Your task to perform on an android device: delete the emails in spam in the gmail app Image 0: 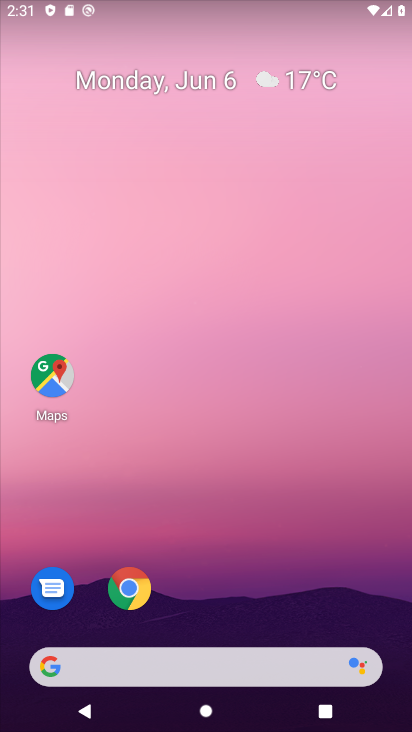
Step 0: drag from (240, 660) to (217, 127)
Your task to perform on an android device: delete the emails in spam in the gmail app Image 1: 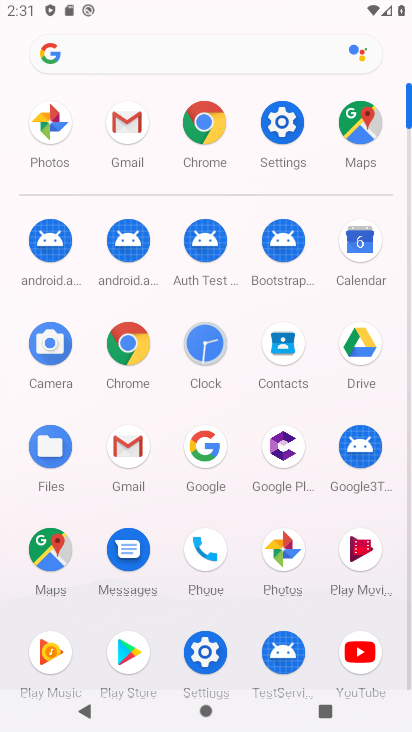
Step 1: click (131, 449)
Your task to perform on an android device: delete the emails in spam in the gmail app Image 2: 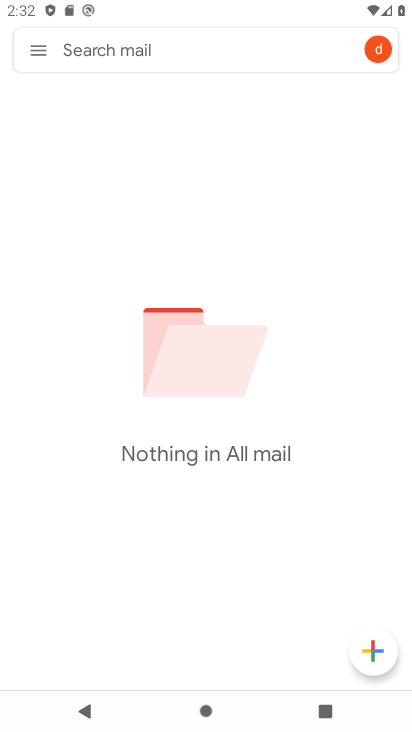
Step 2: click (45, 58)
Your task to perform on an android device: delete the emails in spam in the gmail app Image 3: 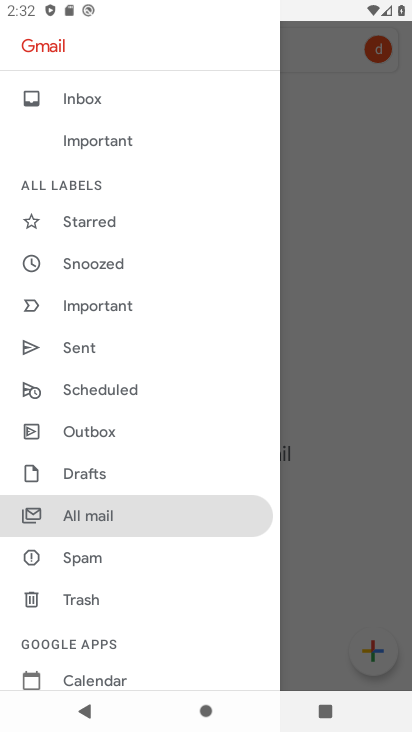
Step 3: click (138, 553)
Your task to perform on an android device: delete the emails in spam in the gmail app Image 4: 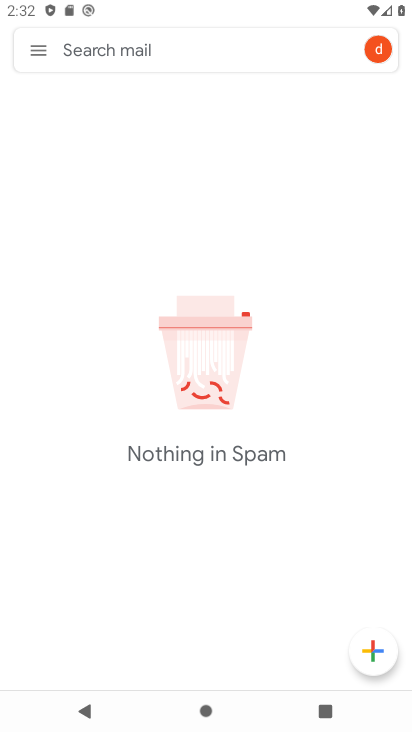
Step 4: task complete